Your task to perform on an android device: snooze an email in the gmail app Image 0: 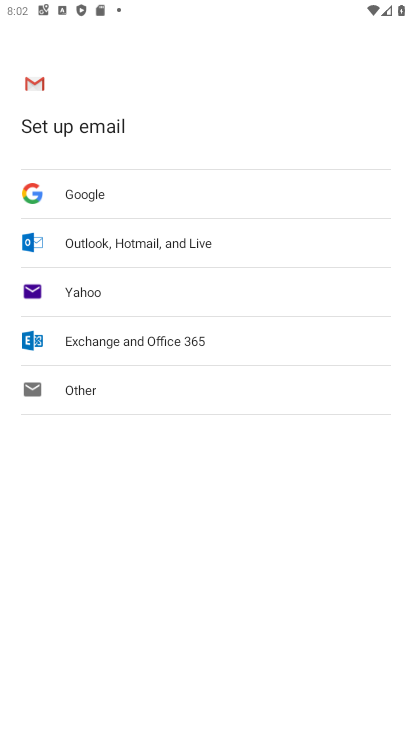
Step 0: press home button
Your task to perform on an android device: snooze an email in the gmail app Image 1: 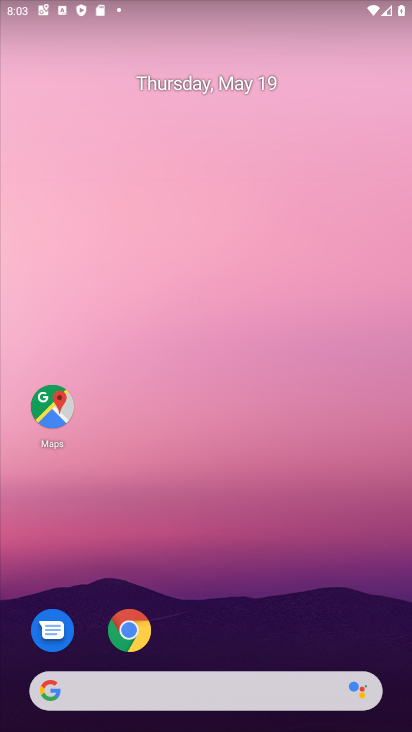
Step 1: drag from (404, 650) to (342, 117)
Your task to perform on an android device: snooze an email in the gmail app Image 2: 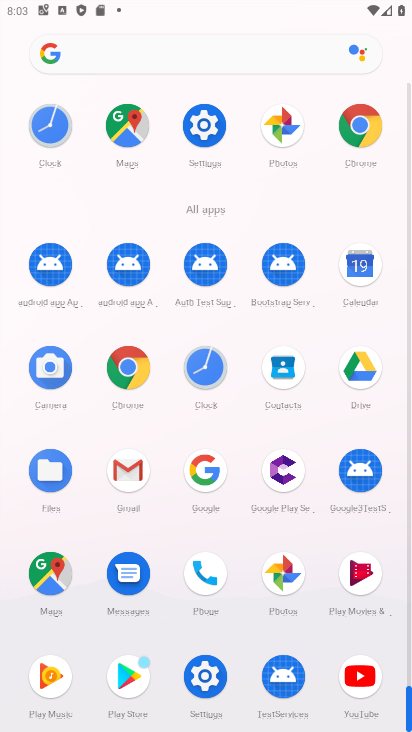
Step 2: click (126, 470)
Your task to perform on an android device: snooze an email in the gmail app Image 3: 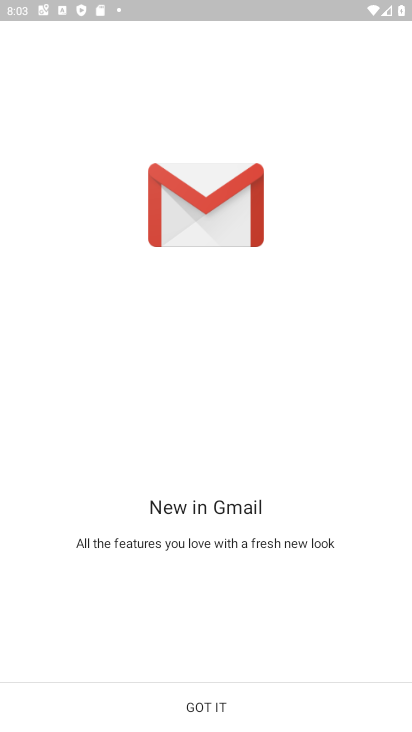
Step 3: click (208, 714)
Your task to perform on an android device: snooze an email in the gmail app Image 4: 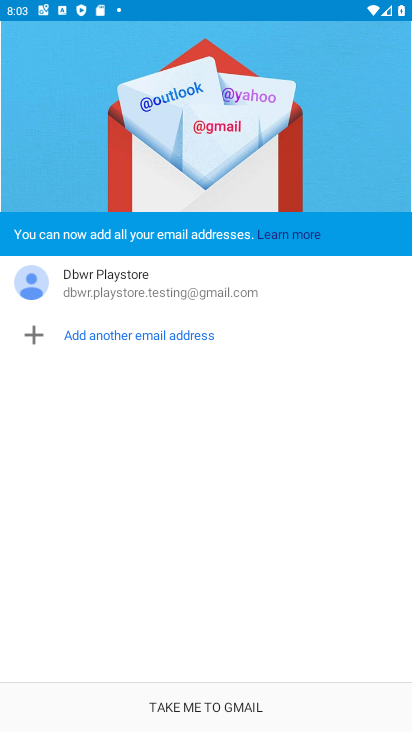
Step 4: click (208, 714)
Your task to perform on an android device: snooze an email in the gmail app Image 5: 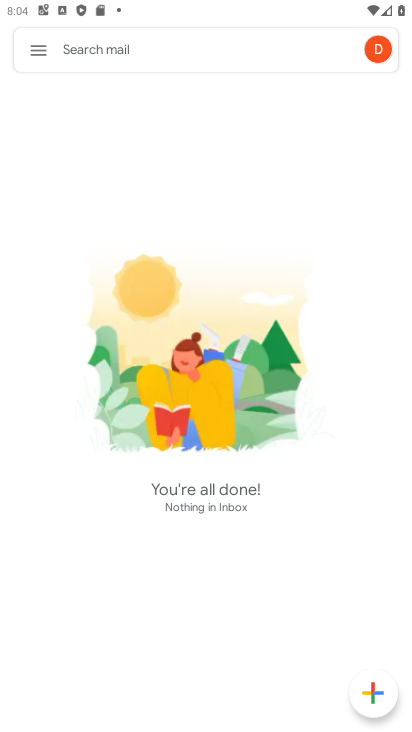
Step 5: click (37, 48)
Your task to perform on an android device: snooze an email in the gmail app Image 6: 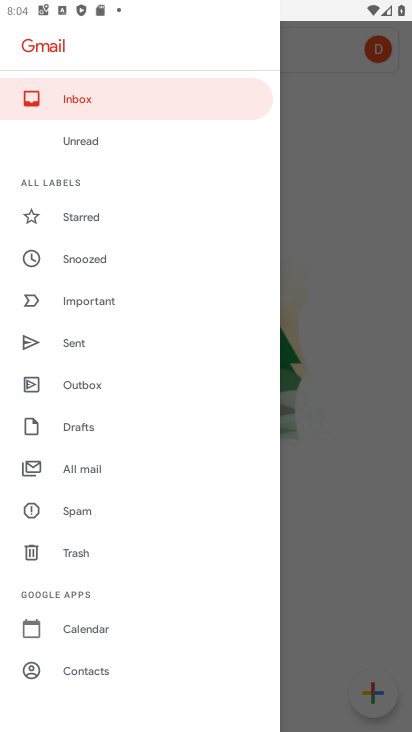
Step 6: click (84, 472)
Your task to perform on an android device: snooze an email in the gmail app Image 7: 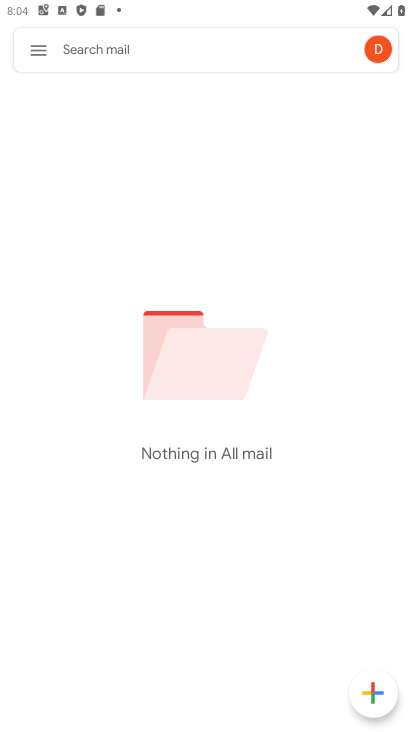
Step 7: task complete